Your task to perform on an android device: turn off airplane mode Image 0: 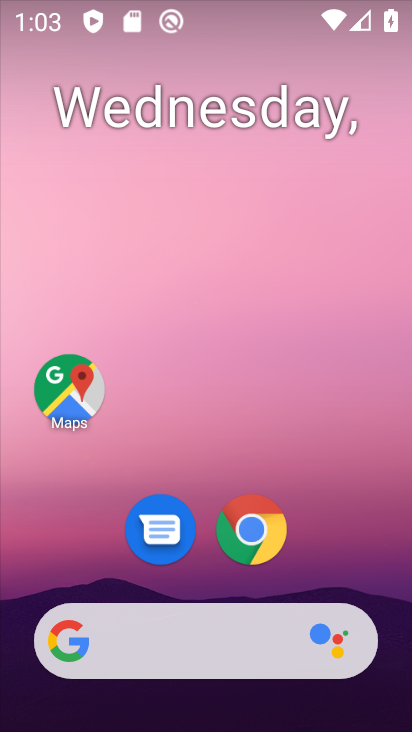
Step 0: drag from (238, 0) to (285, 573)
Your task to perform on an android device: turn off airplane mode Image 1: 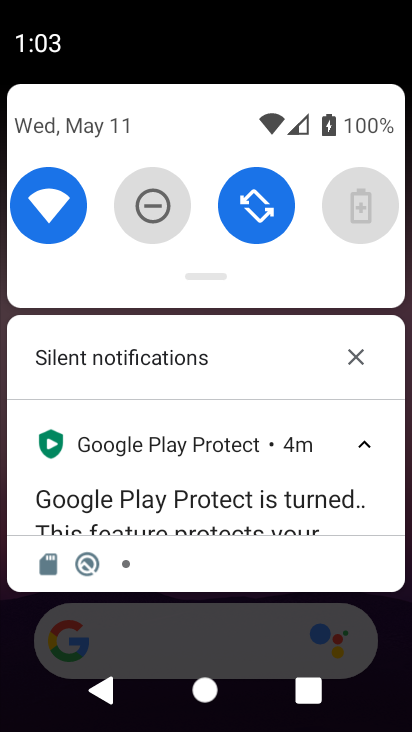
Step 1: task complete